Your task to perform on an android device: What is the news today? Image 0: 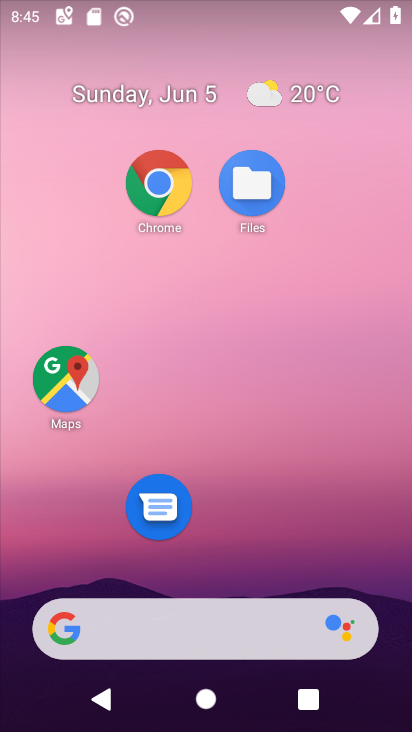
Step 0: click (193, 622)
Your task to perform on an android device: What is the news today? Image 1: 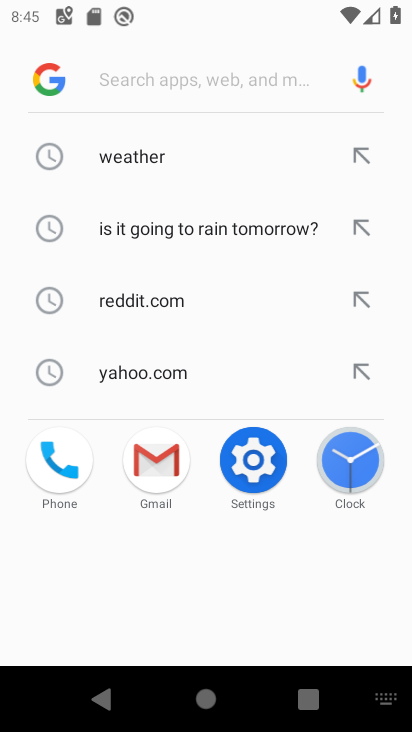
Step 1: click (217, 74)
Your task to perform on an android device: What is the news today? Image 2: 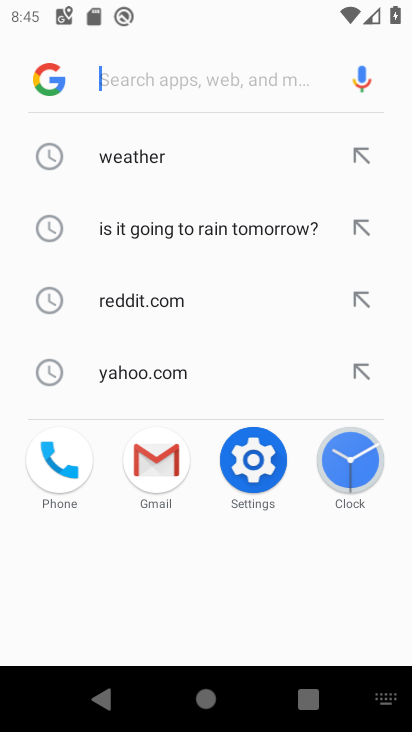
Step 2: type "news today"
Your task to perform on an android device: What is the news today? Image 3: 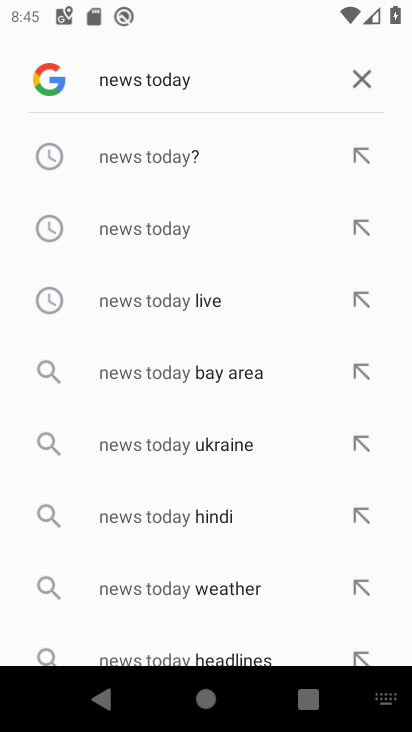
Step 3: click (197, 147)
Your task to perform on an android device: What is the news today? Image 4: 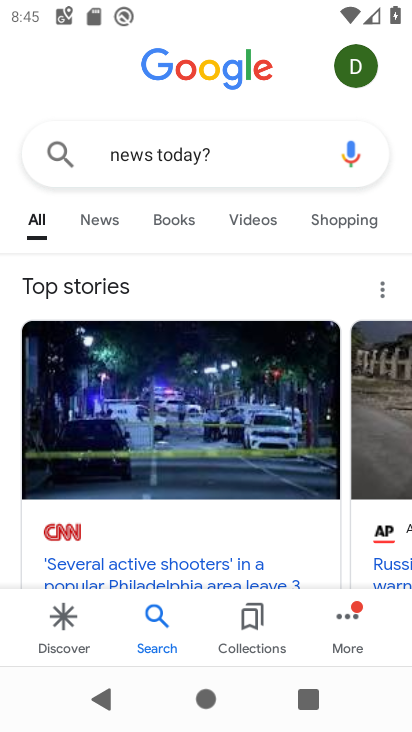
Step 4: click (106, 215)
Your task to perform on an android device: What is the news today? Image 5: 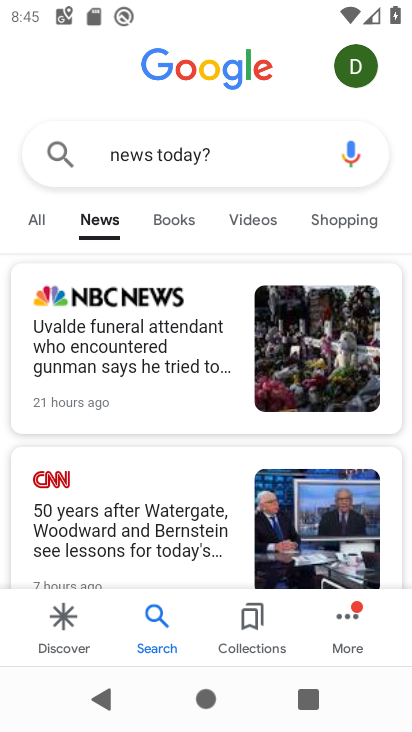
Step 5: task complete